Your task to perform on an android device: Open Wikipedia Image 0: 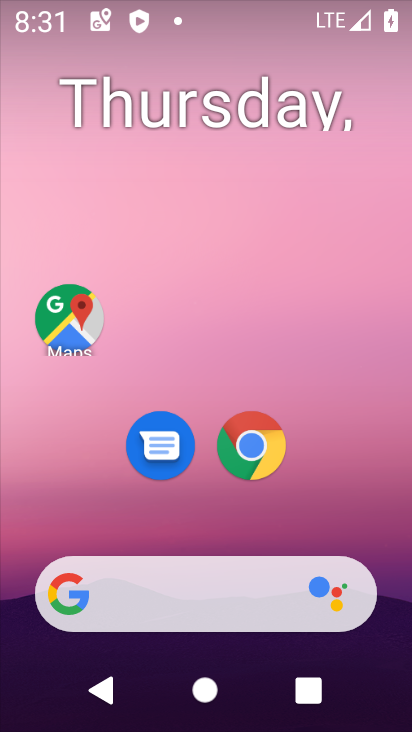
Step 0: drag from (387, 612) to (312, 143)
Your task to perform on an android device: Open Wikipedia Image 1: 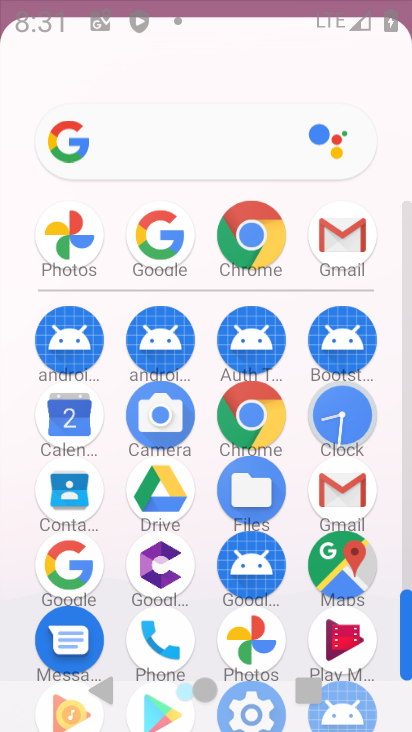
Step 1: click (312, 143)
Your task to perform on an android device: Open Wikipedia Image 2: 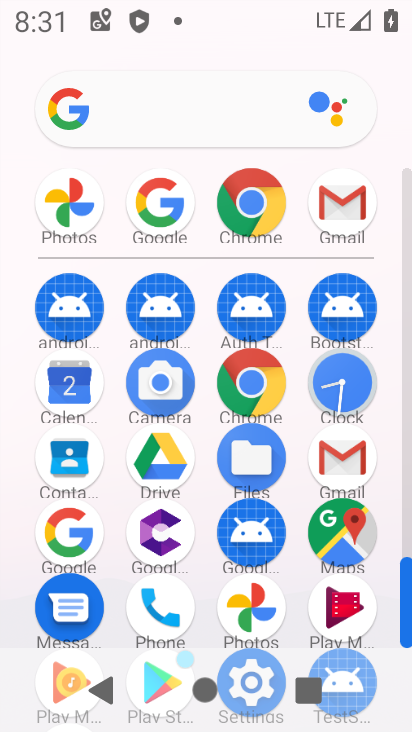
Step 2: click (61, 523)
Your task to perform on an android device: Open Wikipedia Image 3: 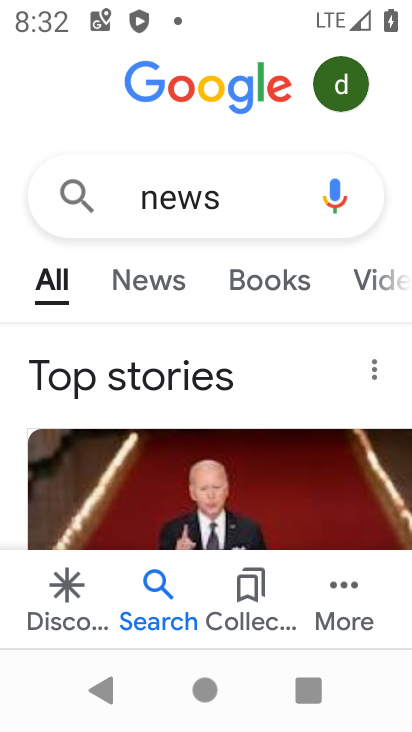
Step 3: press back button
Your task to perform on an android device: Open Wikipedia Image 4: 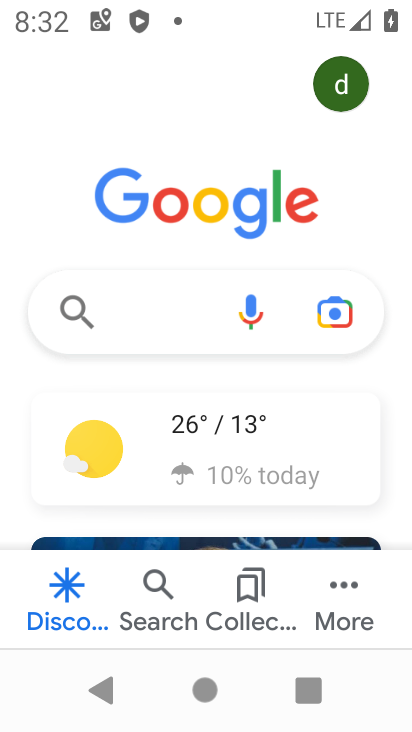
Step 4: click (144, 308)
Your task to perform on an android device: Open Wikipedia Image 5: 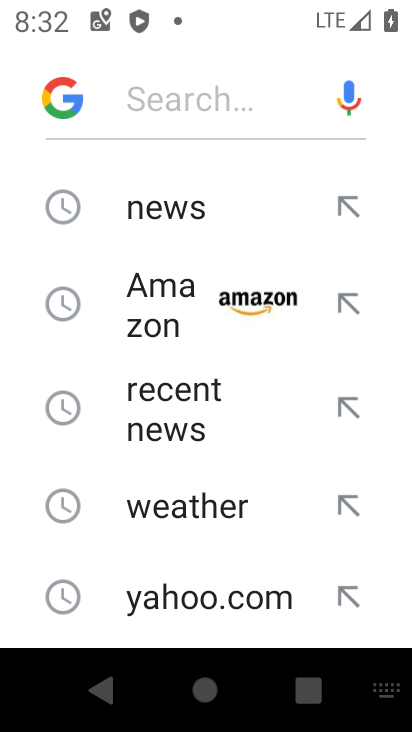
Step 5: type "wikipedia"
Your task to perform on an android device: Open Wikipedia Image 6: 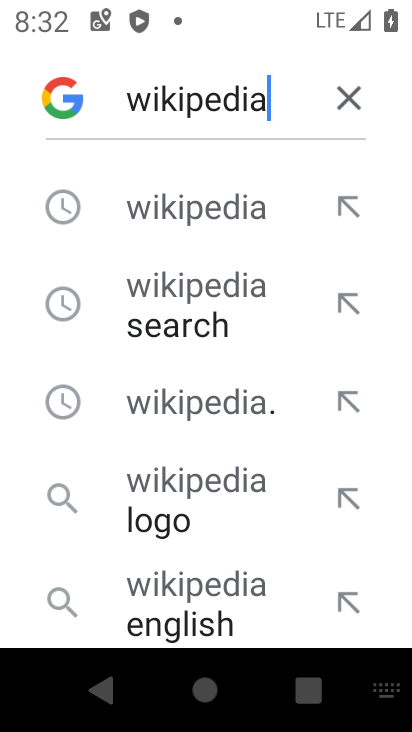
Step 6: click (236, 215)
Your task to perform on an android device: Open Wikipedia Image 7: 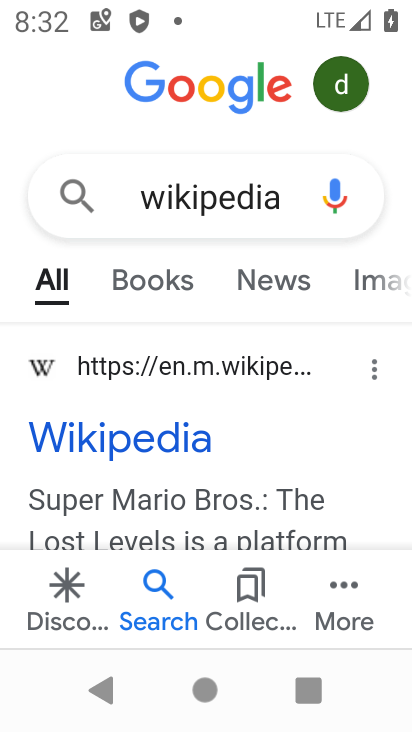
Step 7: task complete